Your task to perform on an android device: Go to CNN.com Image 0: 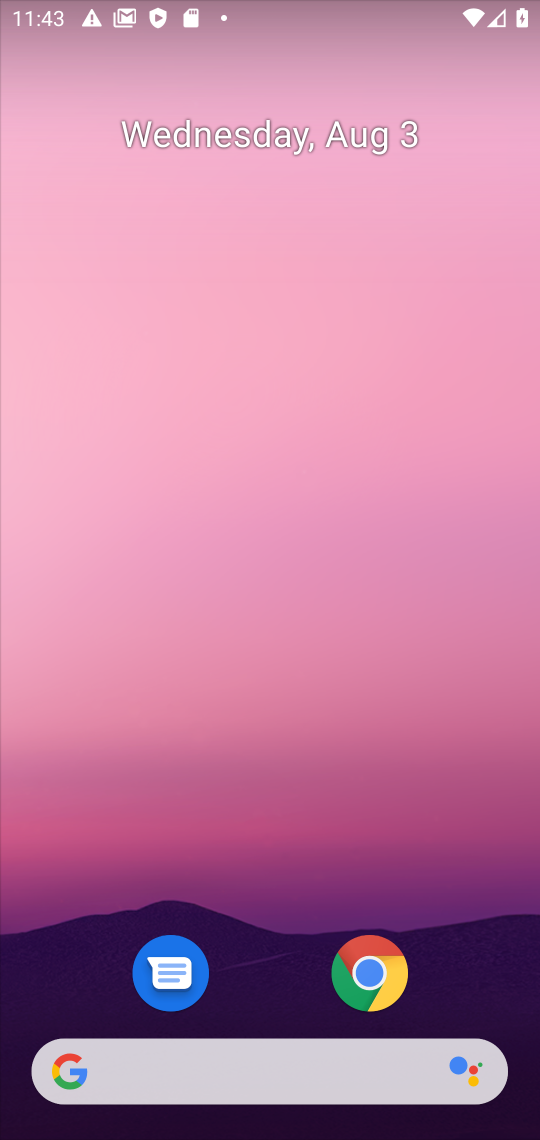
Step 0: click (200, 1063)
Your task to perform on an android device: Go to CNN.com Image 1: 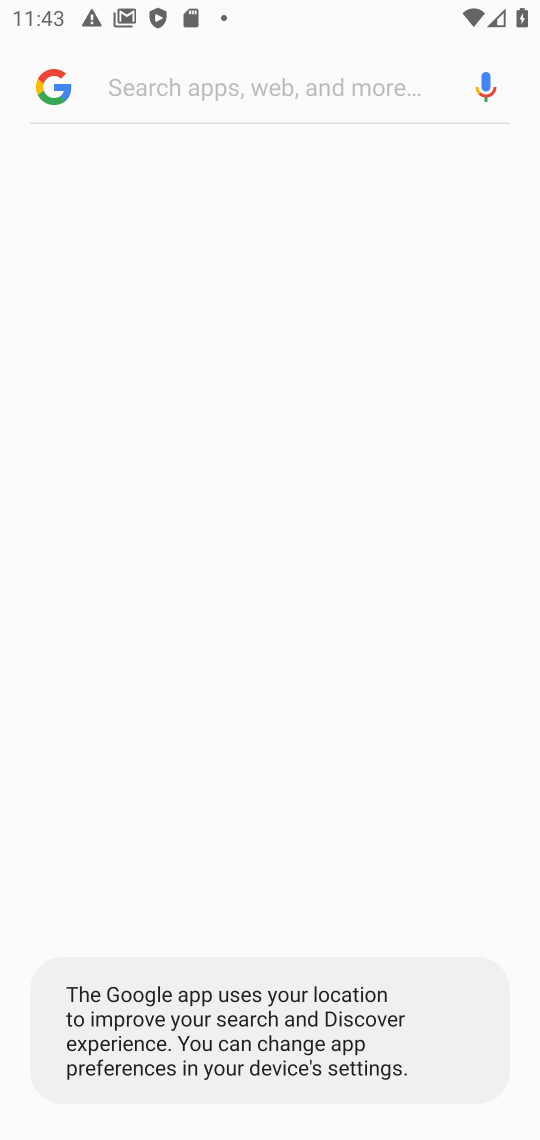
Step 1: task complete